Your task to perform on an android device: Open Chrome and go to settings Image 0: 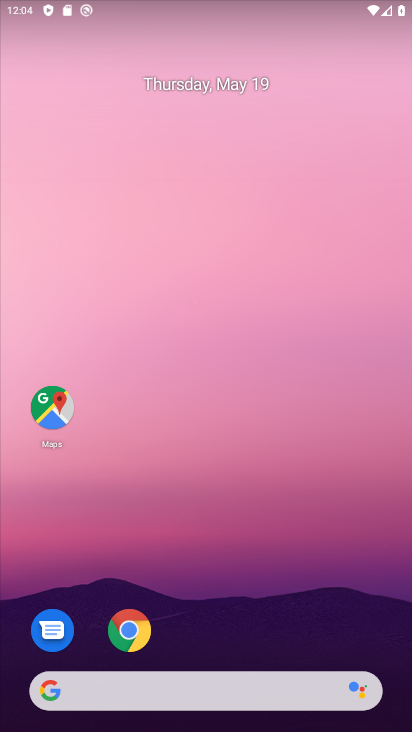
Step 0: click (133, 644)
Your task to perform on an android device: Open Chrome and go to settings Image 1: 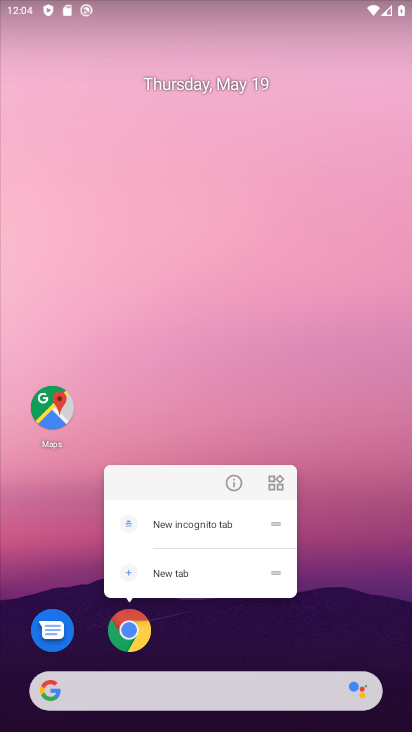
Step 1: click (238, 480)
Your task to perform on an android device: Open Chrome and go to settings Image 2: 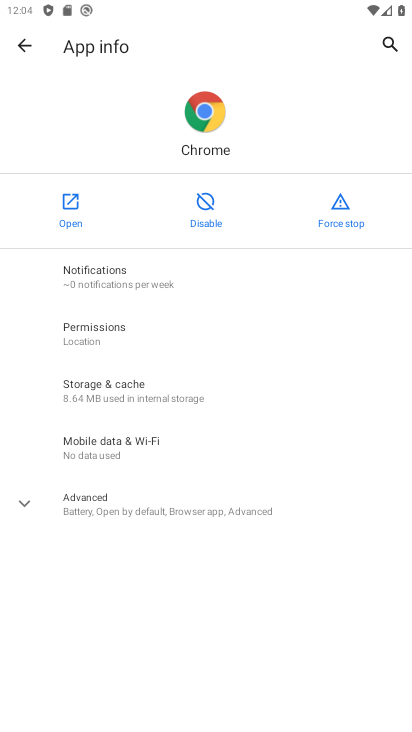
Step 2: click (68, 218)
Your task to perform on an android device: Open Chrome and go to settings Image 3: 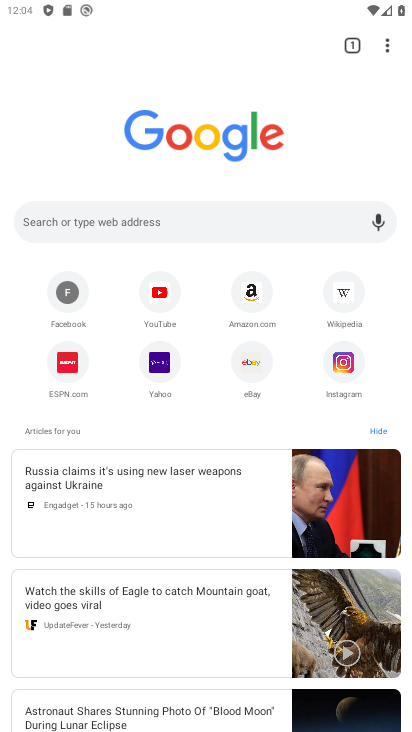
Step 3: click (395, 40)
Your task to perform on an android device: Open Chrome and go to settings Image 4: 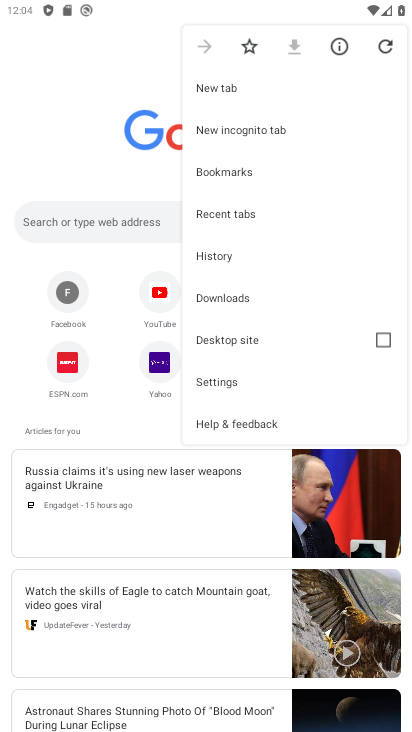
Step 4: click (223, 380)
Your task to perform on an android device: Open Chrome and go to settings Image 5: 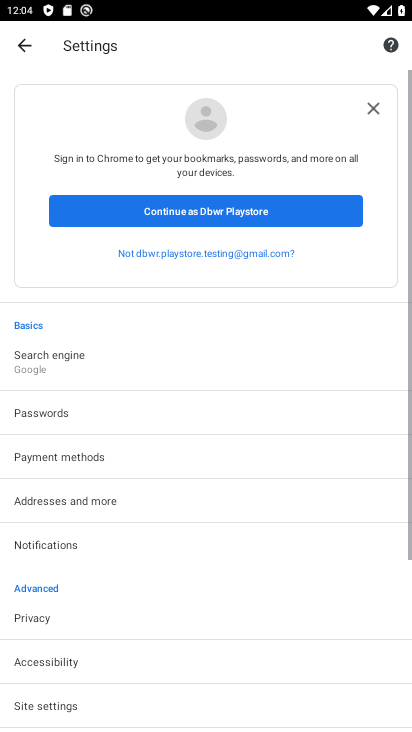
Step 5: task complete